Your task to perform on an android device: Search for vegetarian restaurants on Maps Image 0: 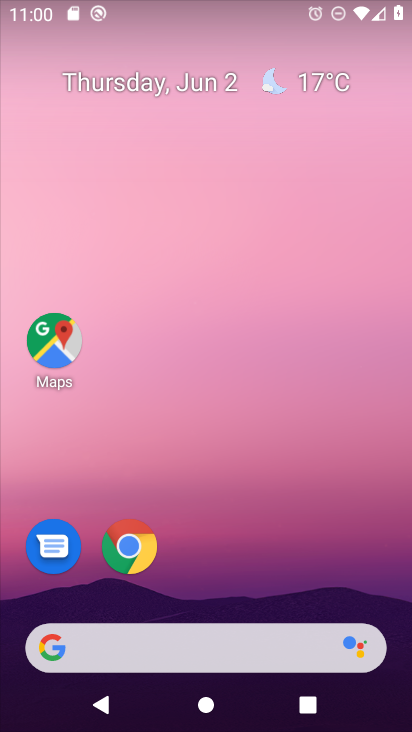
Step 0: drag from (229, 430) to (214, 5)
Your task to perform on an android device: Search for vegetarian restaurants on Maps Image 1: 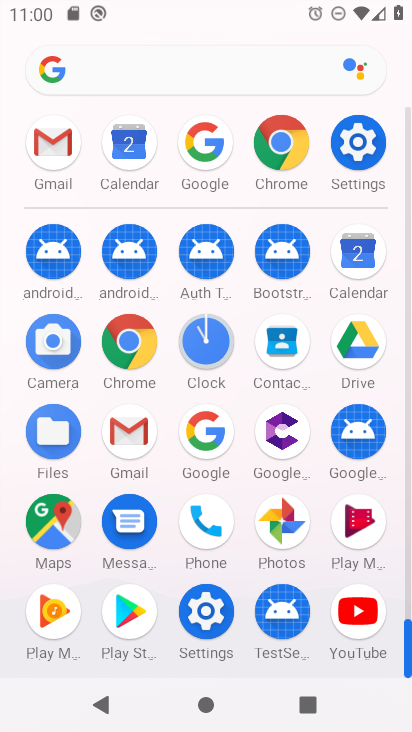
Step 1: drag from (9, 618) to (14, 291)
Your task to perform on an android device: Search for vegetarian restaurants on Maps Image 2: 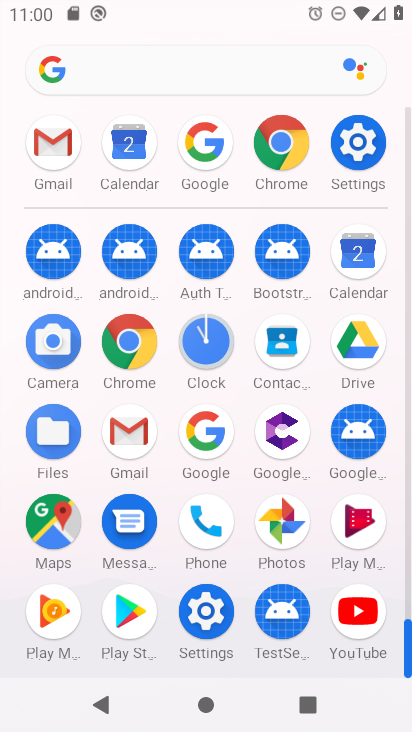
Step 2: click (42, 521)
Your task to perform on an android device: Search for vegetarian restaurants on Maps Image 3: 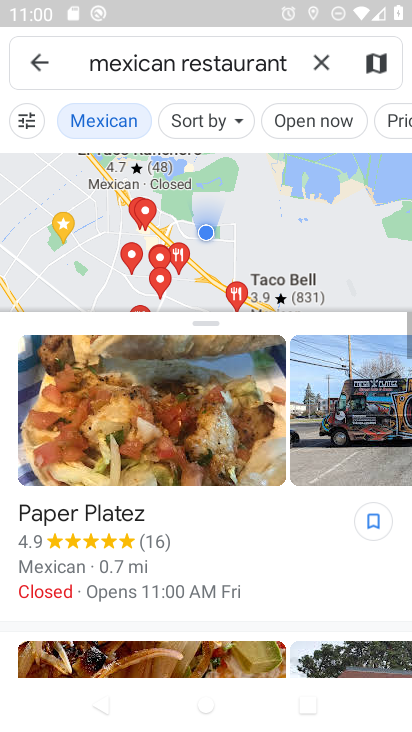
Step 3: click (321, 59)
Your task to perform on an android device: Search for vegetarian restaurants on Maps Image 4: 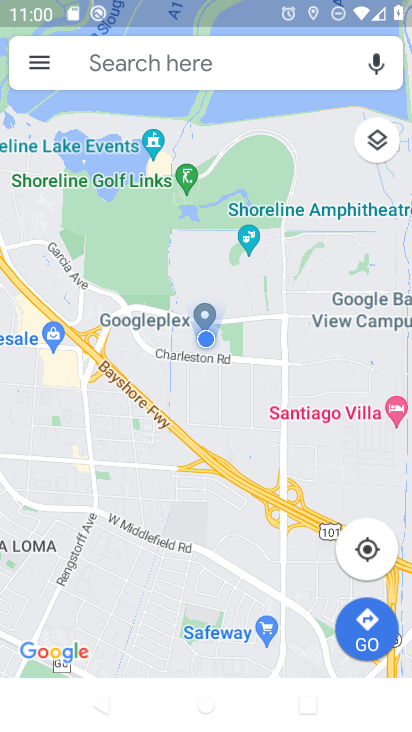
Step 4: click (129, 221)
Your task to perform on an android device: Search for vegetarian restaurants on Maps Image 5: 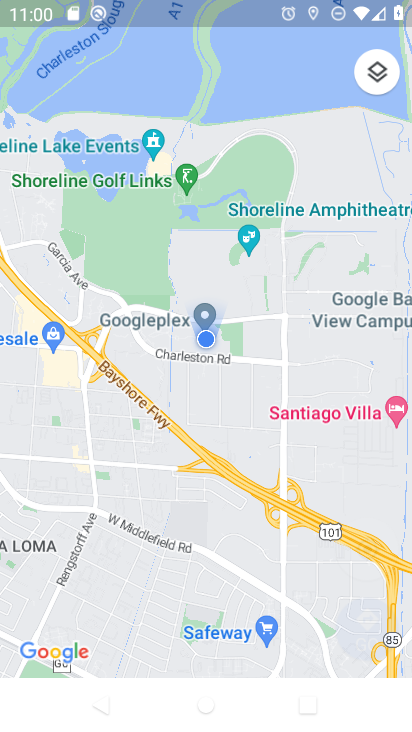
Step 5: click (240, 59)
Your task to perform on an android device: Search for vegetarian restaurants on Maps Image 6: 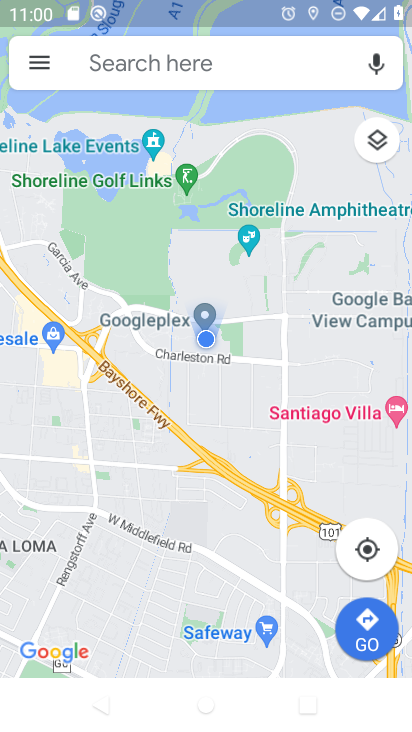
Step 6: click (240, 59)
Your task to perform on an android device: Search for vegetarian restaurants on Maps Image 7: 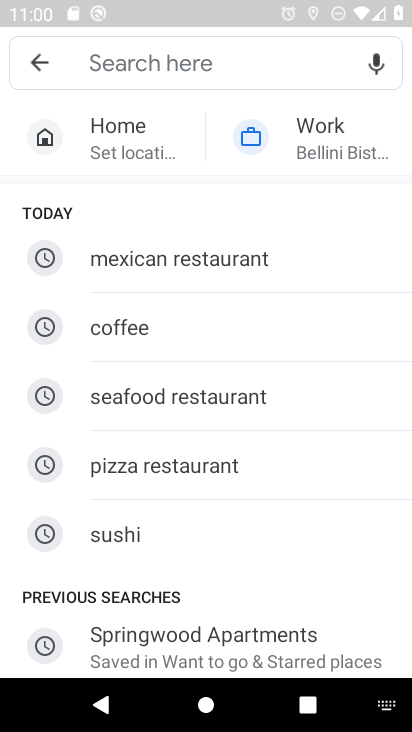
Step 7: type "vegetarian restaurants"
Your task to perform on an android device: Search for vegetarian restaurants on Maps Image 8: 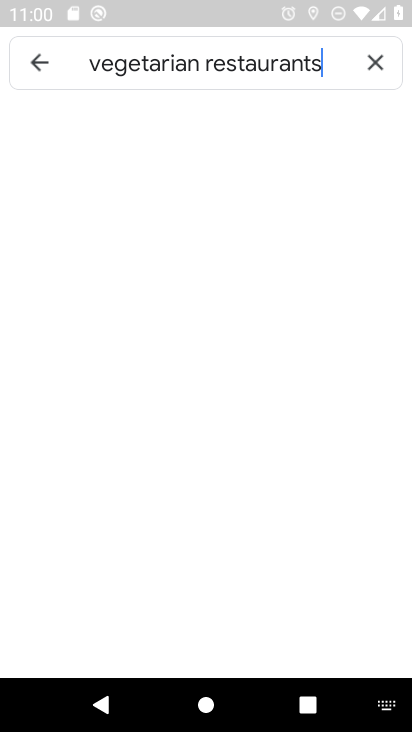
Step 8: type ""
Your task to perform on an android device: Search for vegetarian restaurants on Maps Image 9: 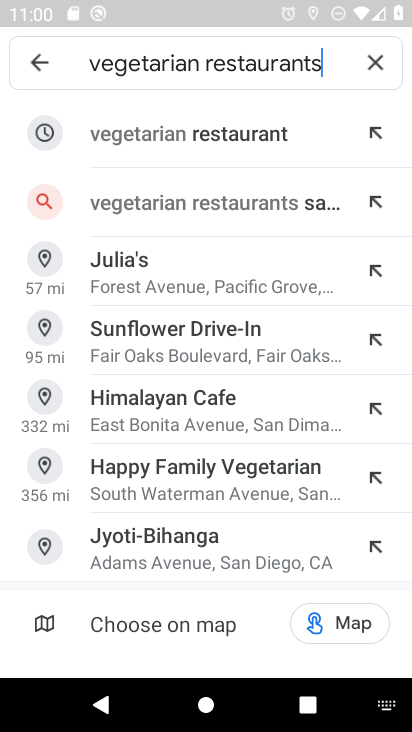
Step 9: click (168, 128)
Your task to perform on an android device: Search for vegetarian restaurants on Maps Image 10: 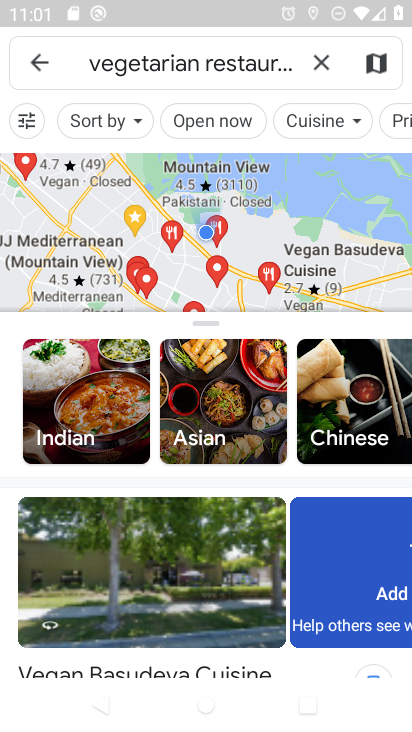
Step 10: task complete